Your task to perform on an android device: Turn off the flashlight Image 0: 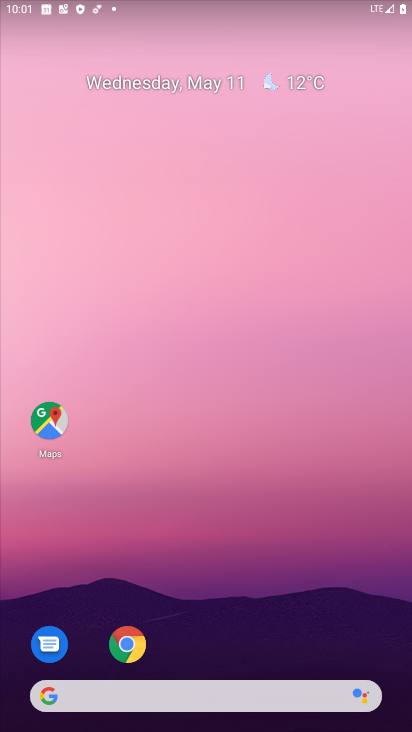
Step 0: drag from (257, 630) to (280, 21)
Your task to perform on an android device: Turn off the flashlight Image 1: 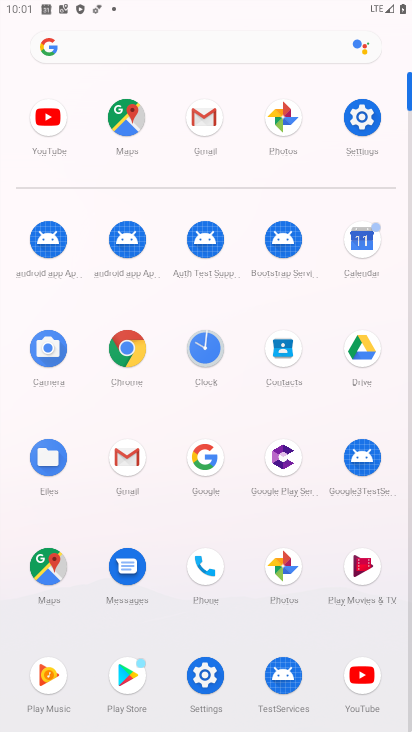
Step 1: click (356, 160)
Your task to perform on an android device: Turn off the flashlight Image 2: 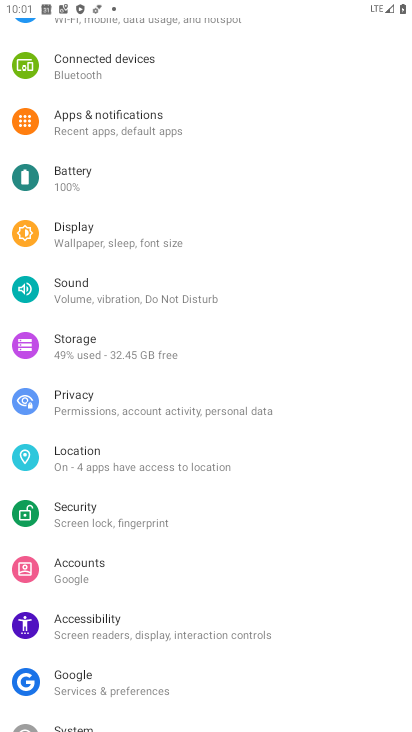
Step 2: click (251, 273)
Your task to perform on an android device: Turn off the flashlight Image 3: 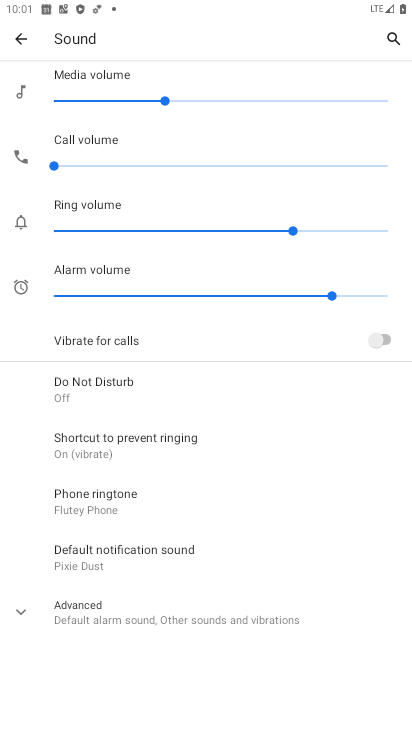
Step 3: task complete